Your task to perform on an android device: move a message to another label in the gmail app Image 0: 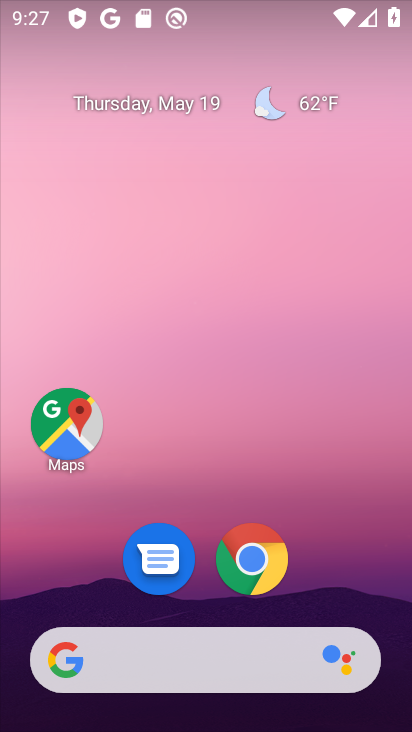
Step 0: drag from (356, 564) to (217, 150)
Your task to perform on an android device: move a message to another label in the gmail app Image 1: 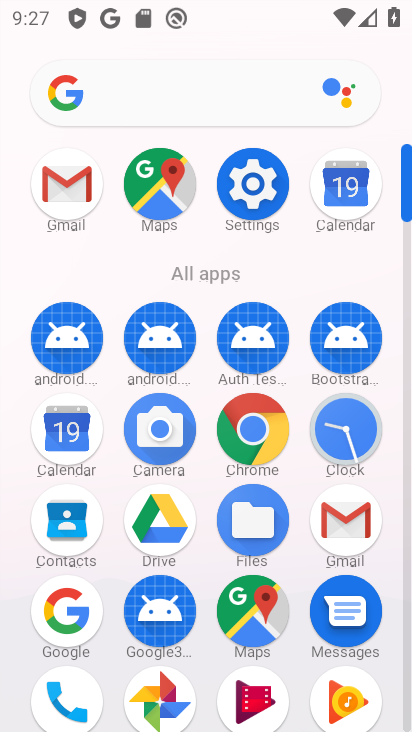
Step 1: click (352, 515)
Your task to perform on an android device: move a message to another label in the gmail app Image 2: 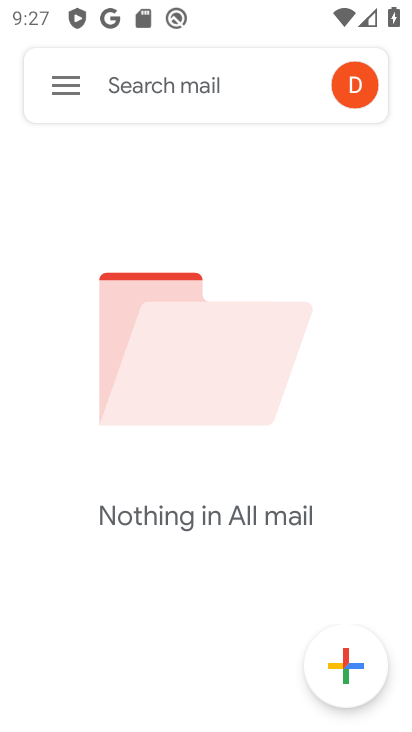
Step 2: click (64, 84)
Your task to perform on an android device: move a message to another label in the gmail app Image 3: 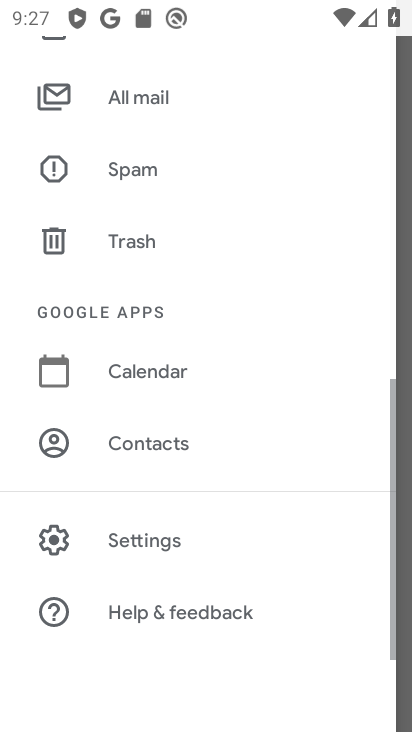
Step 3: drag from (192, 488) to (188, 109)
Your task to perform on an android device: move a message to another label in the gmail app Image 4: 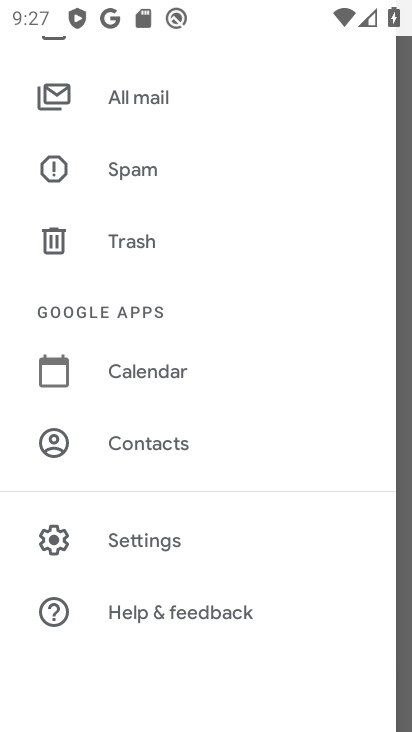
Step 4: drag from (59, 155) to (191, 665)
Your task to perform on an android device: move a message to another label in the gmail app Image 5: 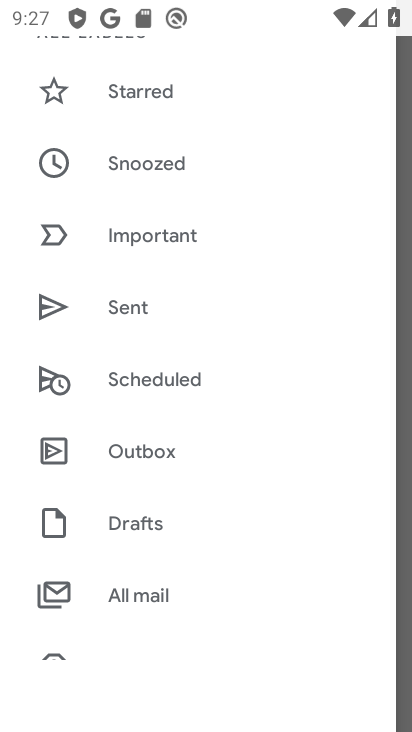
Step 5: click (145, 589)
Your task to perform on an android device: move a message to another label in the gmail app Image 6: 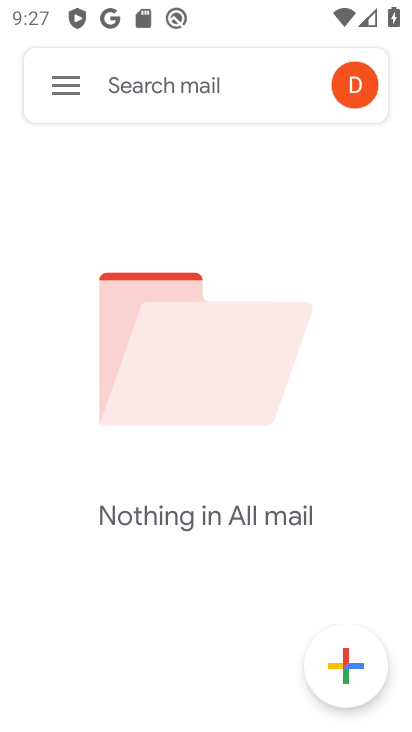
Step 6: task complete